Your task to perform on an android device: Search for amazon basics triple a on newegg, select the first entry, and add it to the cart. Image 0: 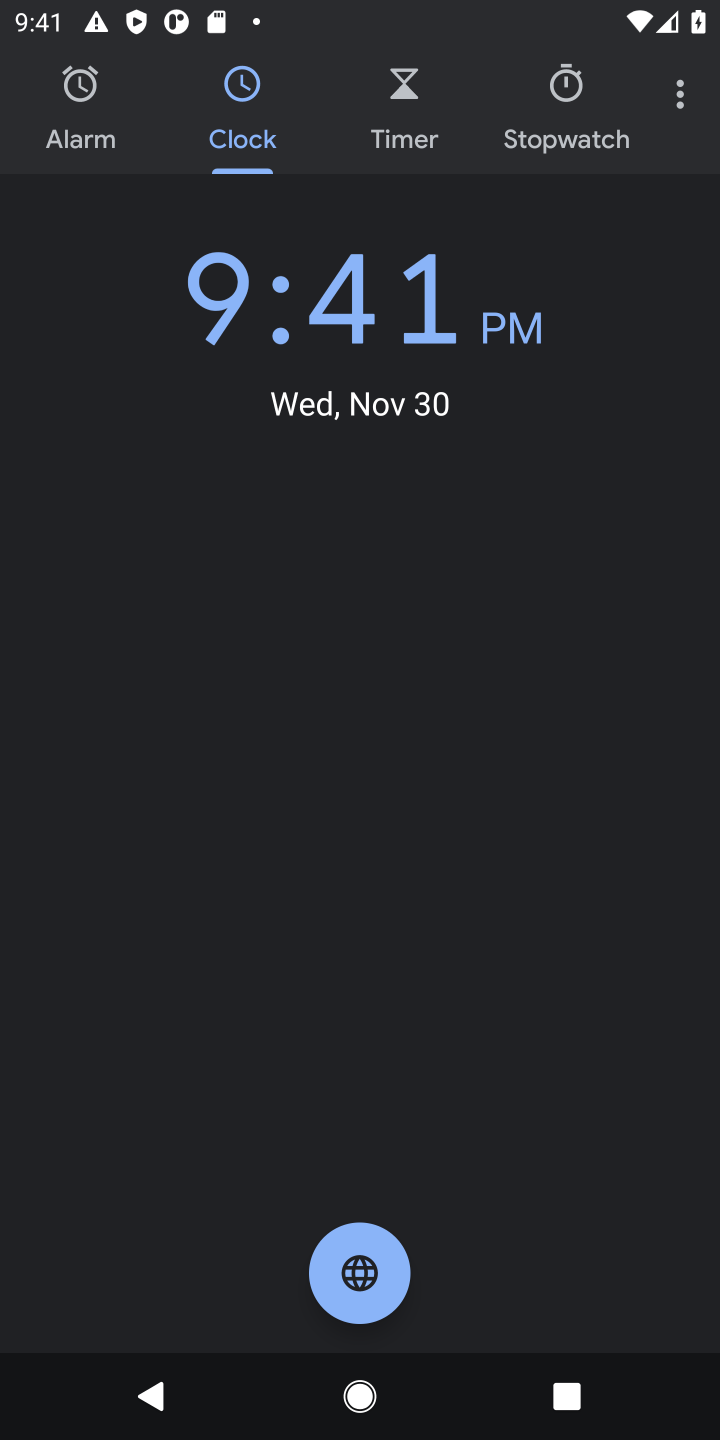
Step 0: press home button
Your task to perform on an android device: Search for amazon basics triple a on newegg, select the first entry, and add it to the cart. Image 1: 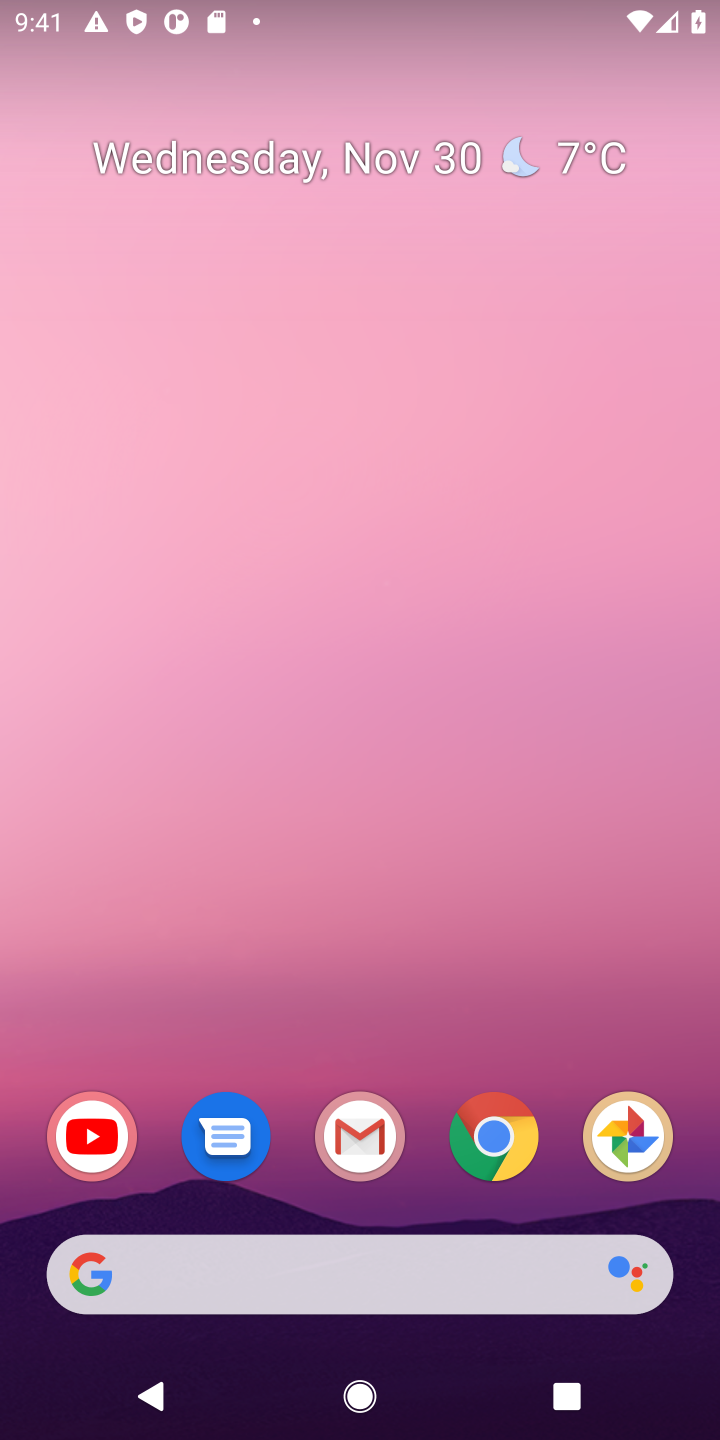
Step 1: click (488, 1155)
Your task to perform on an android device: Search for amazon basics triple a on newegg, select the first entry, and add it to the cart. Image 2: 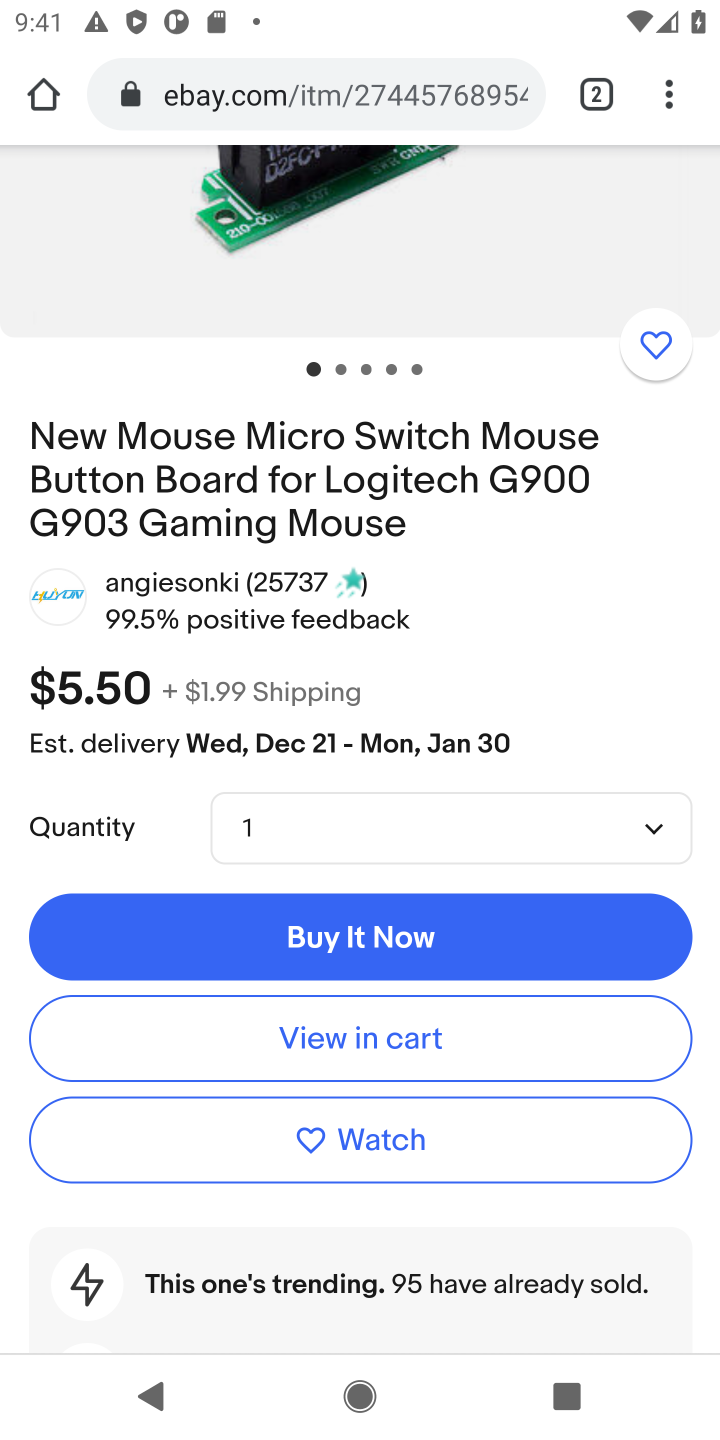
Step 2: click (242, 94)
Your task to perform on an android device: Search for amazon basics triple a on newegg, select the first entry, and add it to the cart. Image 3: 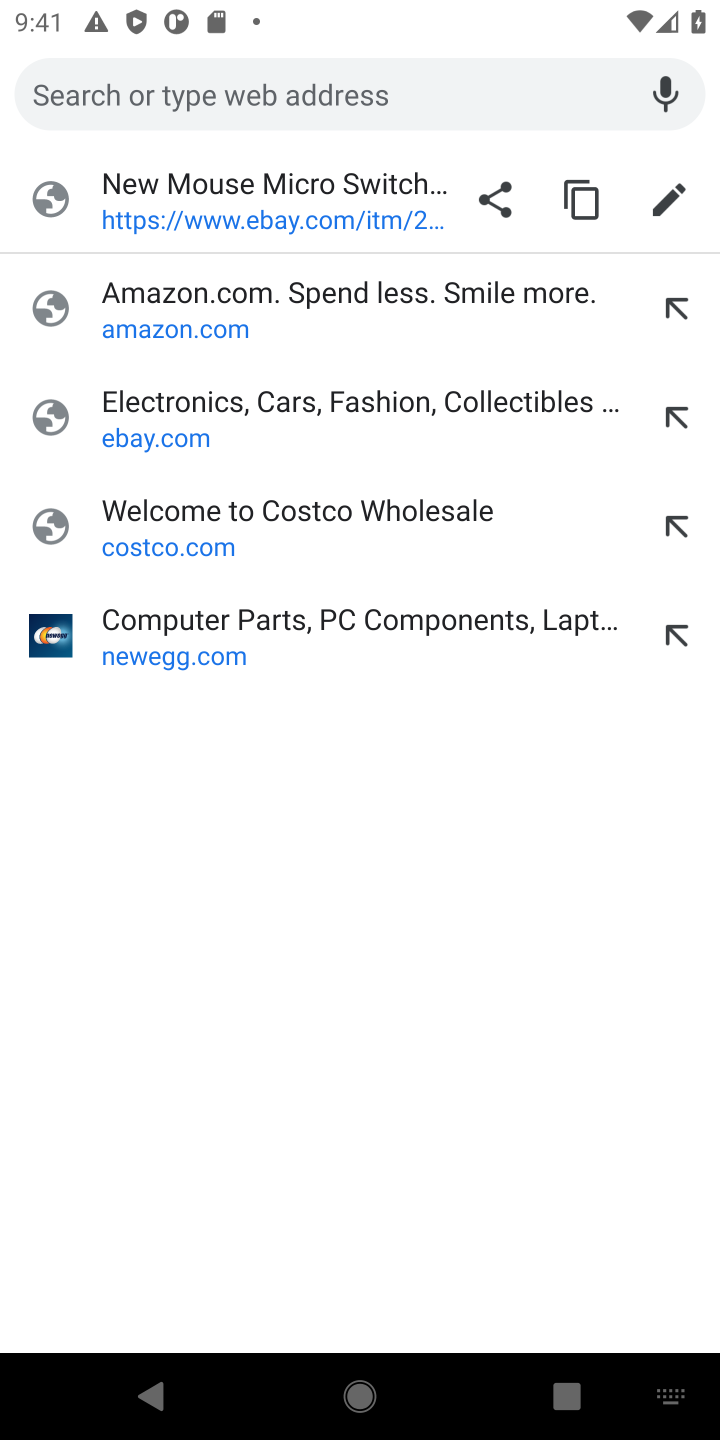
Step 3: click (131, 634)
Your task to perform on an android device: Search for amazon basics triple a on newegg, select the first entry, and add it to the cart. Image 4: 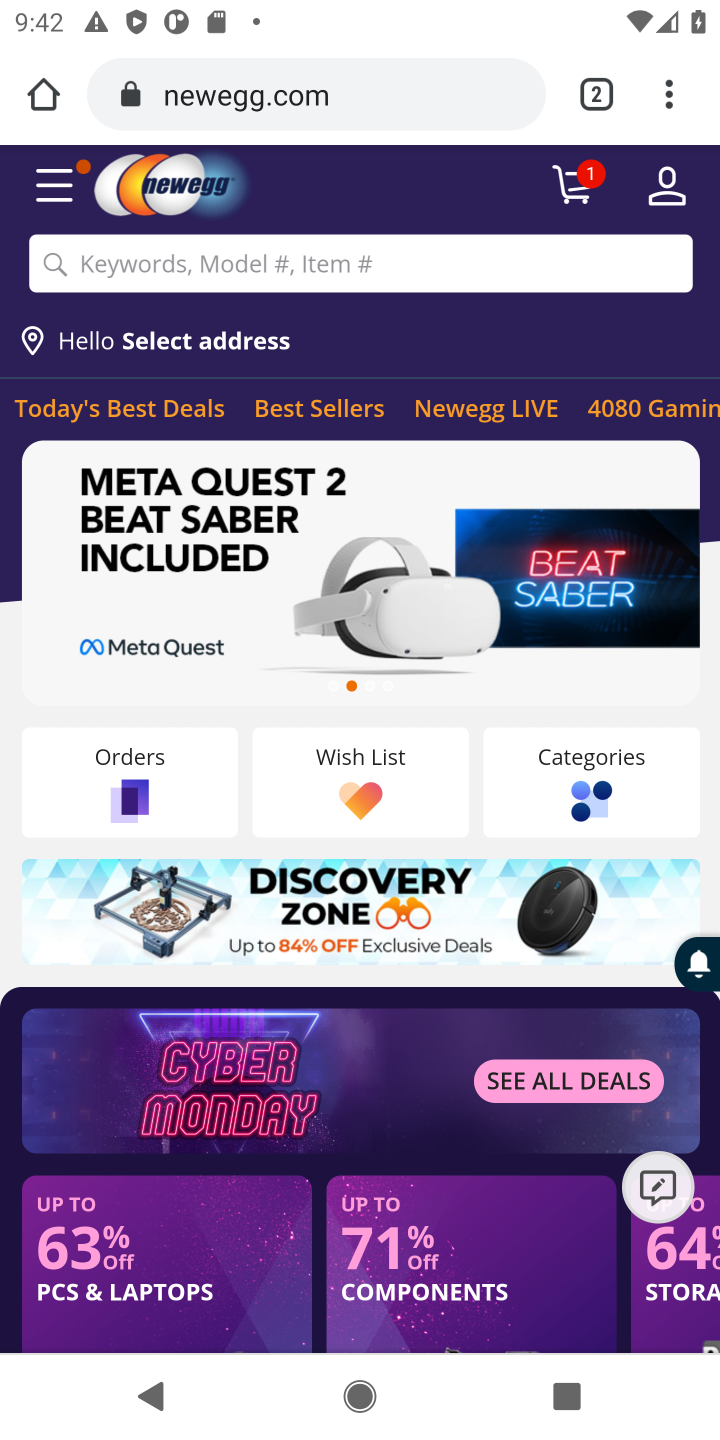
Step 4: click (143, 259)
Your task to perform on an android device: Search for amazon basics triple a on newegg, select the first entry, and add it to the cart. Image 5: 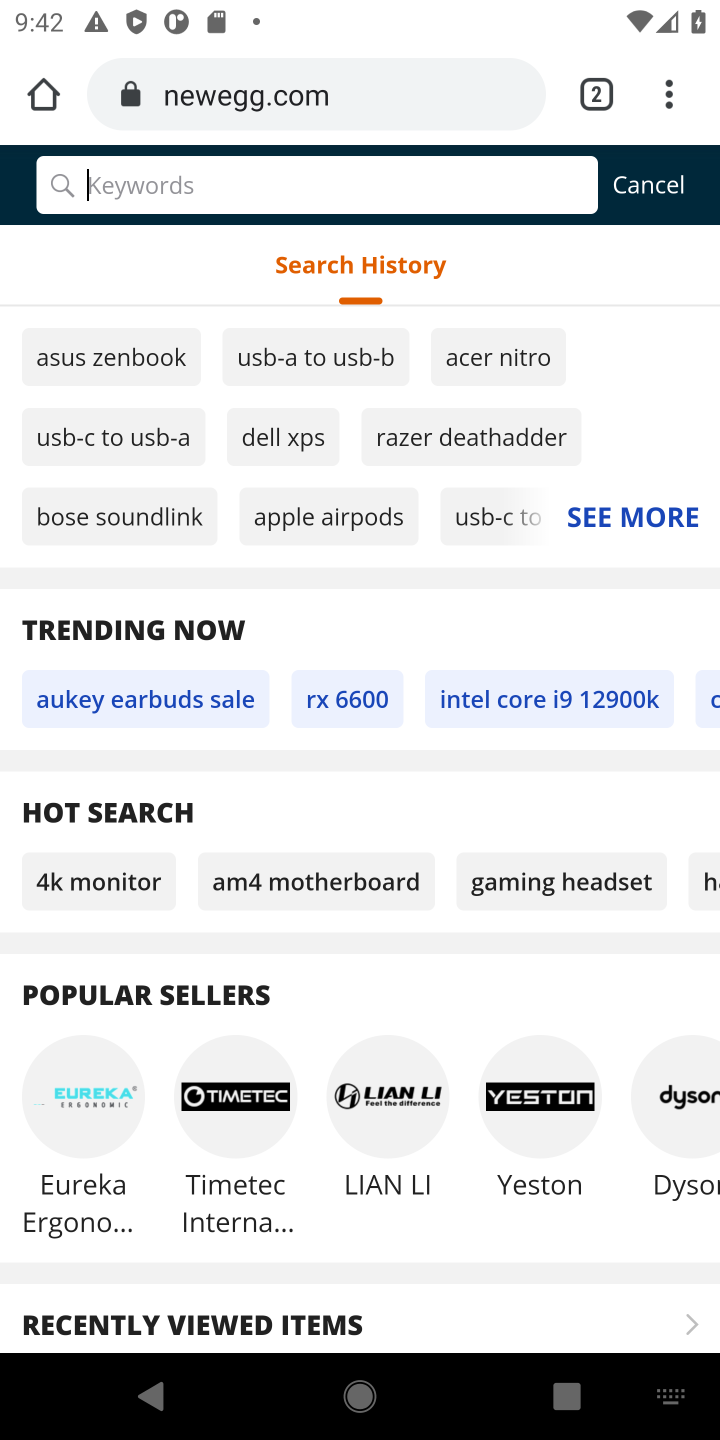
Step 5: type "amazon basics triple a"
Your task to perform on an android device: Search for amazon basics triple a on newegg, select the first entry, and add it to the cart. Image 6: 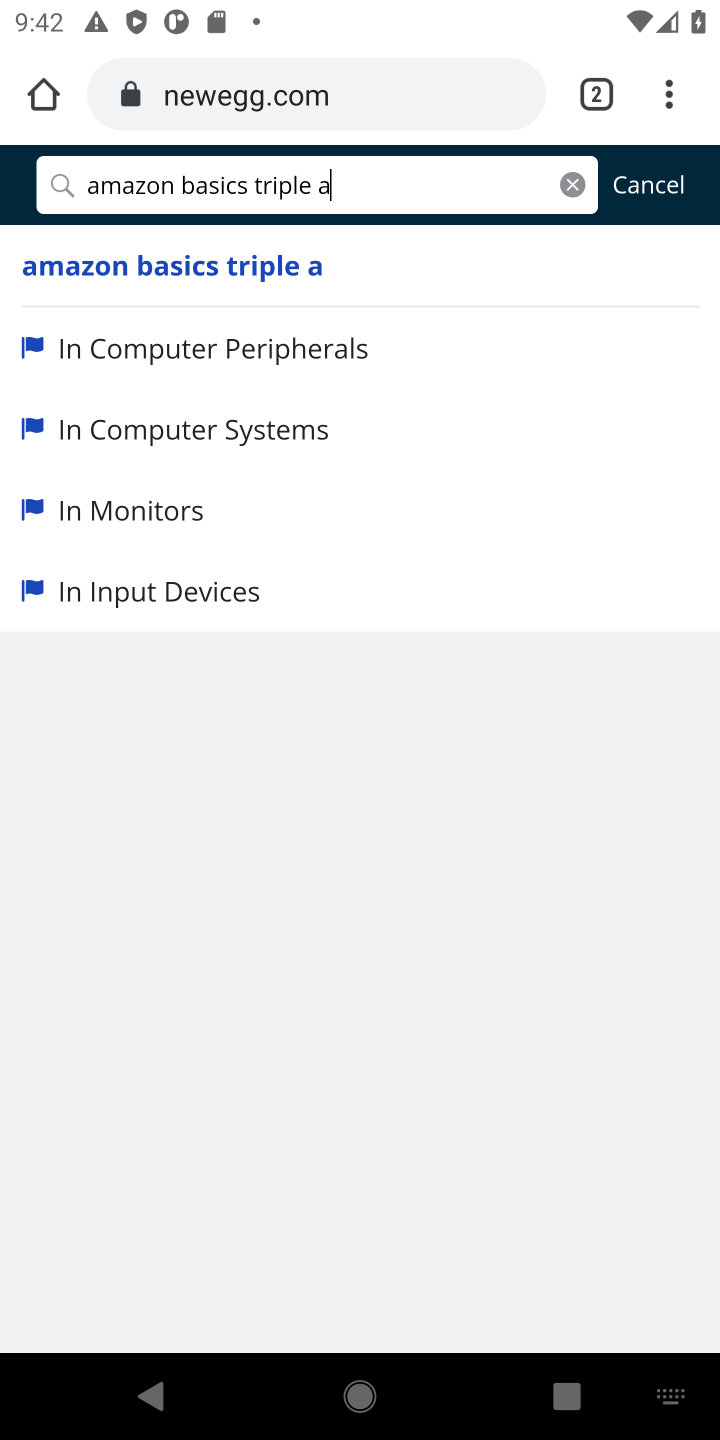
Step 6: click (159, 270)
Your task to perform on an android device: Search for amazon basics triple a on newegg, select the first entry, and add it to the cart. Image 7: 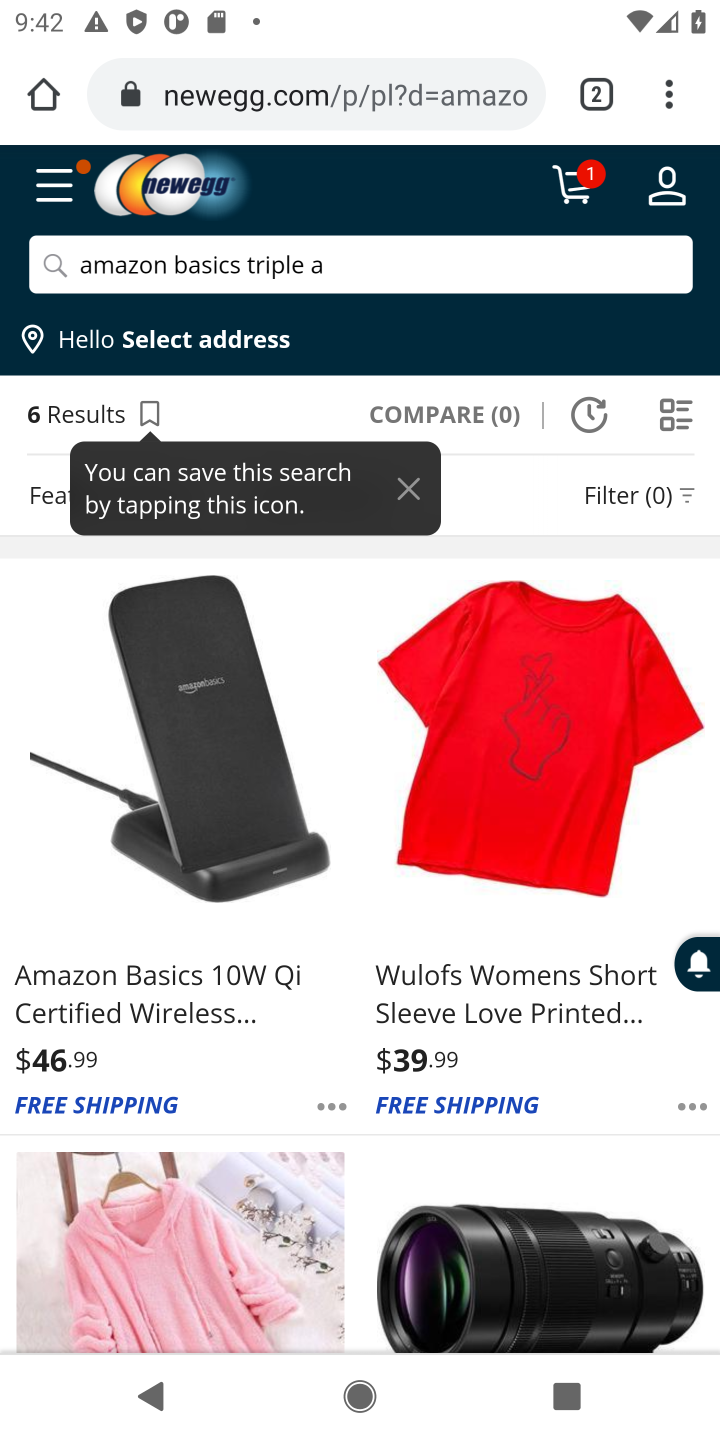
Step 7: task complete